Your task to perform on an android device: When is my next meeting? Image 0: 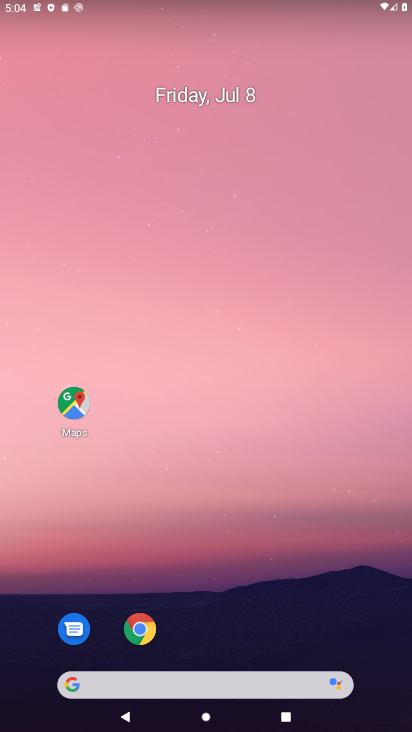
Step 0: press home button
Your task to perform on an android device: When is my next meeting? Image 1: 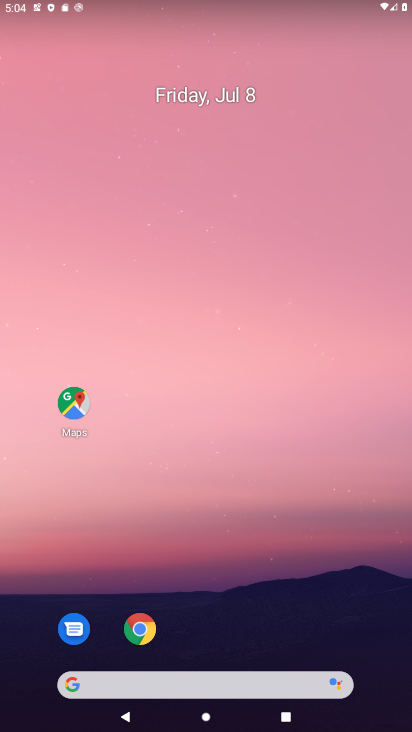
Step 1: drag from (252, 632) to (205, 87)
Your task to perform on an android device: When is my next meeting? Image 2: 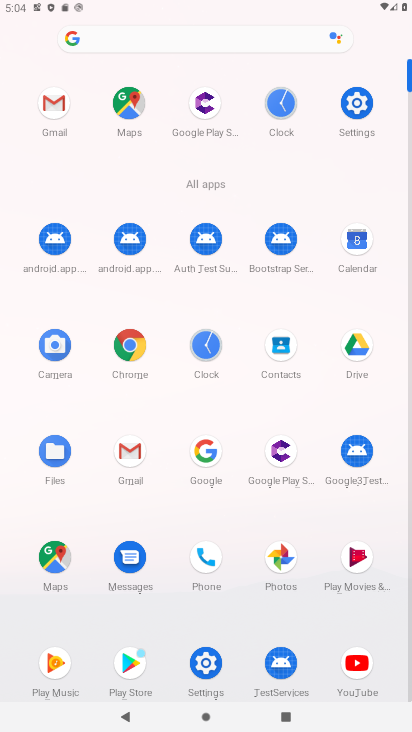
Step 2: click (364, 242)
Your task to perform on an android device: When is my next meeting? Image 3: 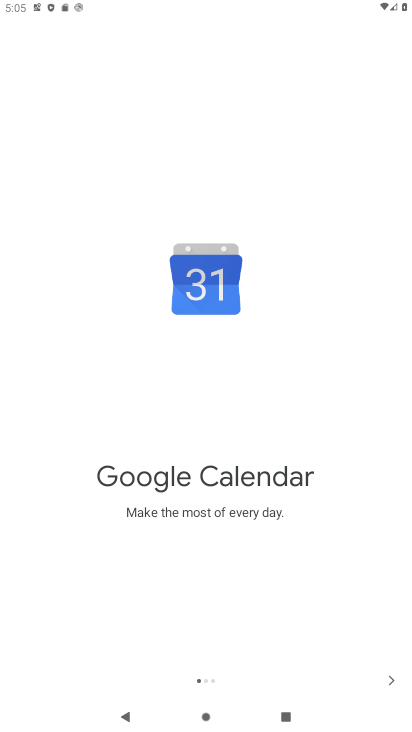
Step 3: click (390, 676)
Your task to perform on an android device: When is my next meeting? Image 4: 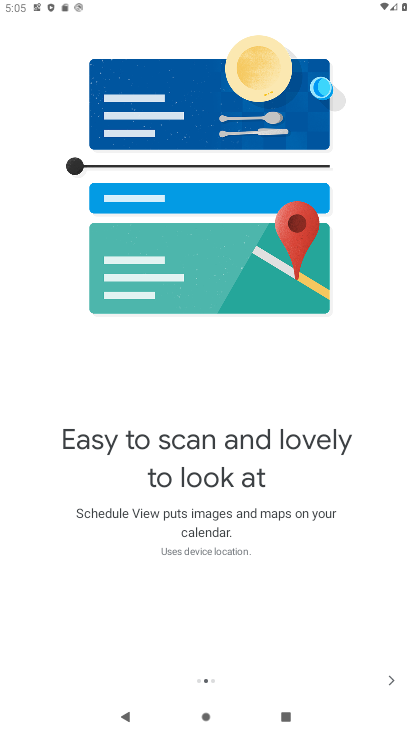
Step 4: click (391, 678)
Your task to perform on an android device: When is my next meeting? Image 5: 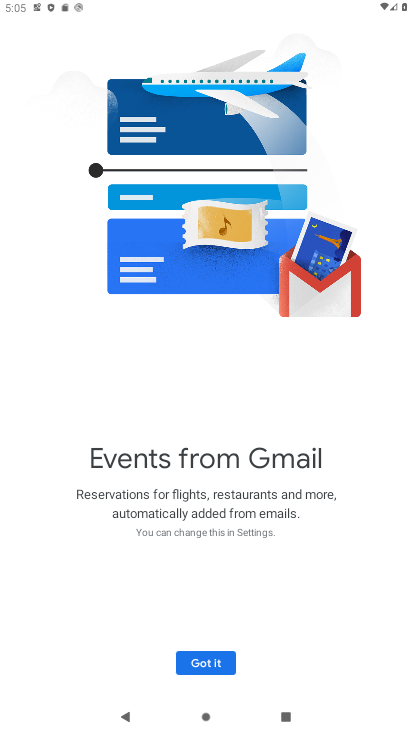
Step 5: click (202, 663)
Your task to perform on an android device: When is my next meeting? Image 6: 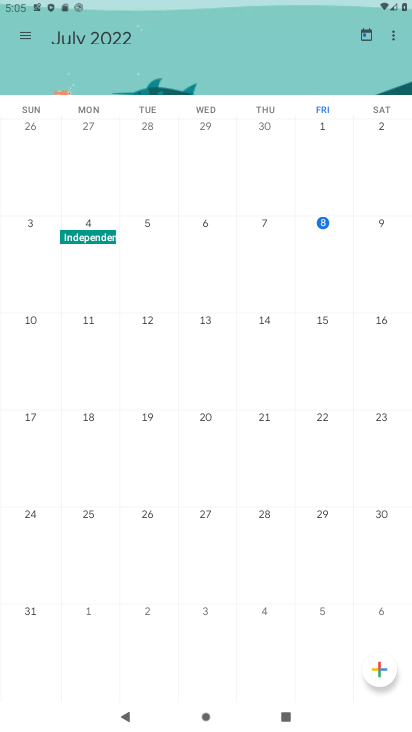
Step 6: click (14, 37)
Your task to perform on an android device: When is my next meeting? Image 7: 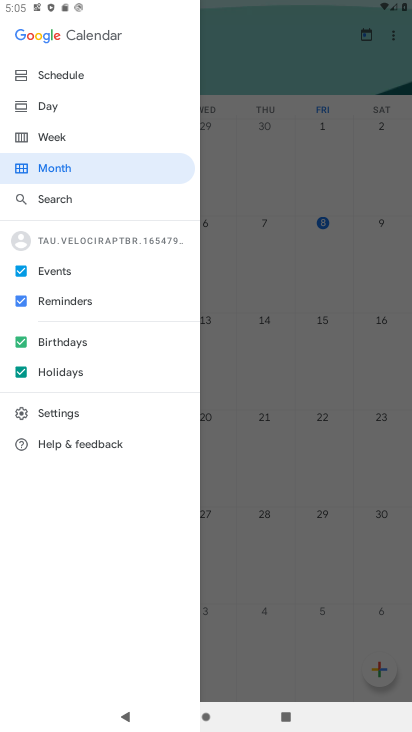
Step 7: click (59, 72)
Your task to perform on an android device: When is my next meeting? Image 8: 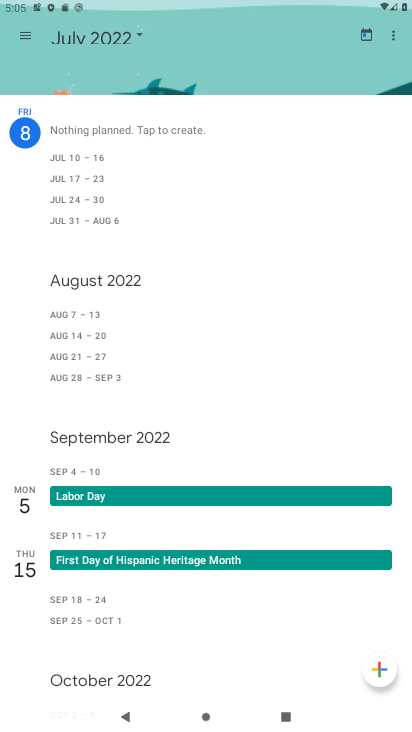
Step 8: task complete